Your task to perform on an android device: Google the capital of Paraguay Image 0: 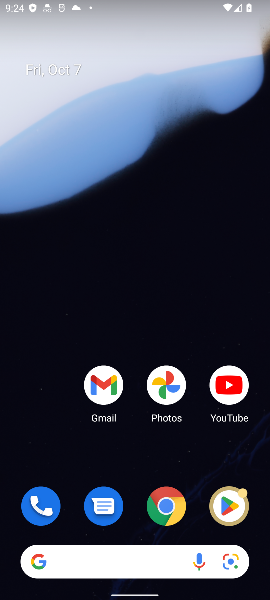
Step 0: click (161, 500)
Your task to perform on an android device: Google the capital of Paraguay Image 1: 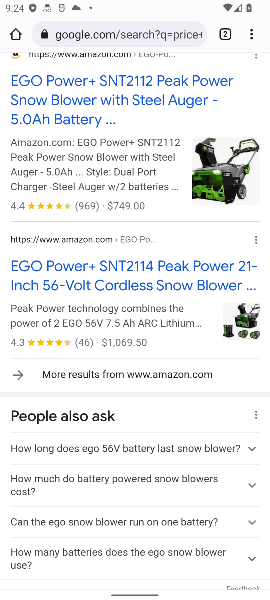
Step 1: click (143, 33)
Your task to perform on an android device: Google the capital of Paraguay Image 2: 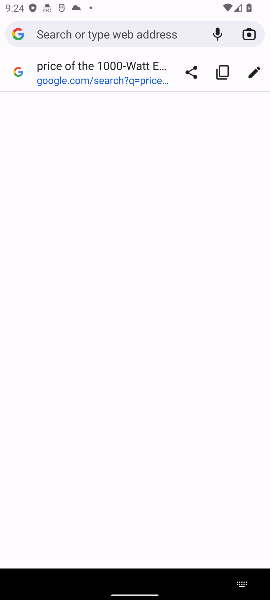
Step 2: click (73, 35)
Your task to perform on an android device: Google the capital of Paraguay Image 3: 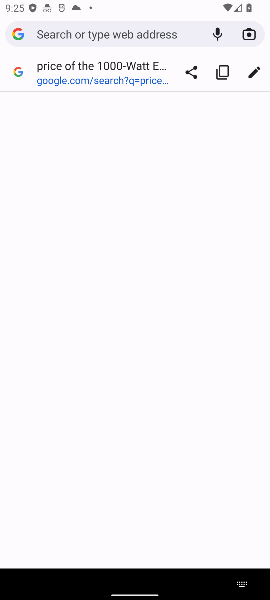
Step 3: type " capital of Paraguay"
Your task to perform on an android device: Google the capital of Paraguay Image 4: 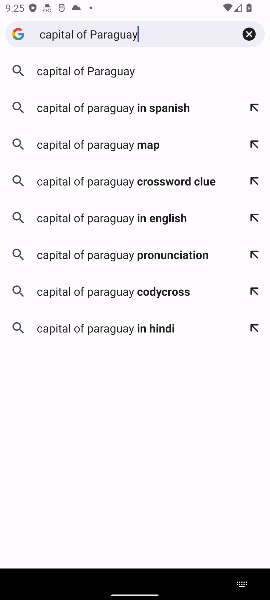
Step 4: click (109, 71)
Your task to perform on an android device: Google the capital of Paraguay Image 5: 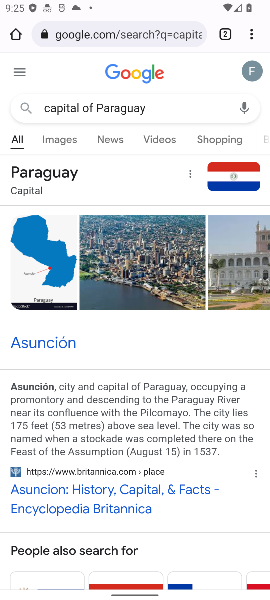
Step 5: task complete